Your task to perform on an android device: delete the emails in spam in the gmail app Image 0: 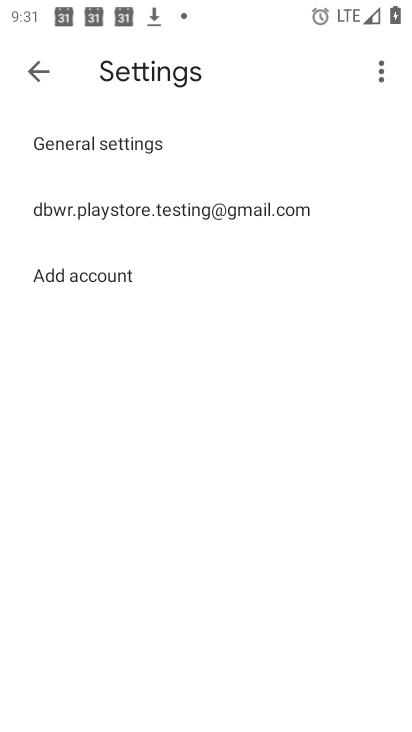
Step 0: press home button
Your task to perform on an android device: delete the emails in spam in the gmail app Image 1: 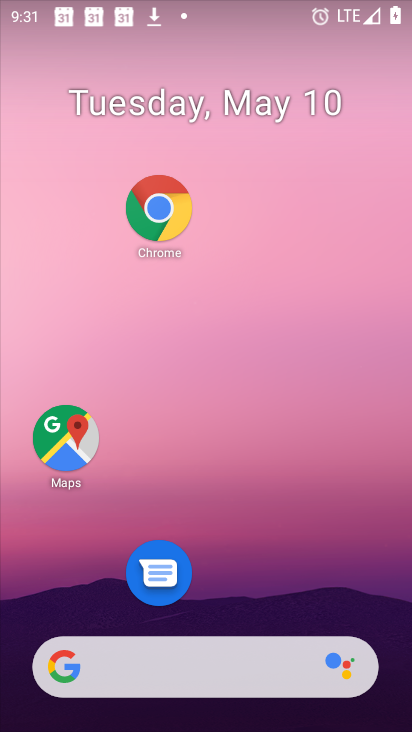
Step 1: drag from (251, 711) to (393, 147)
Your task to perform on an android device: delete the emails in spam in the gmail app Image 2: 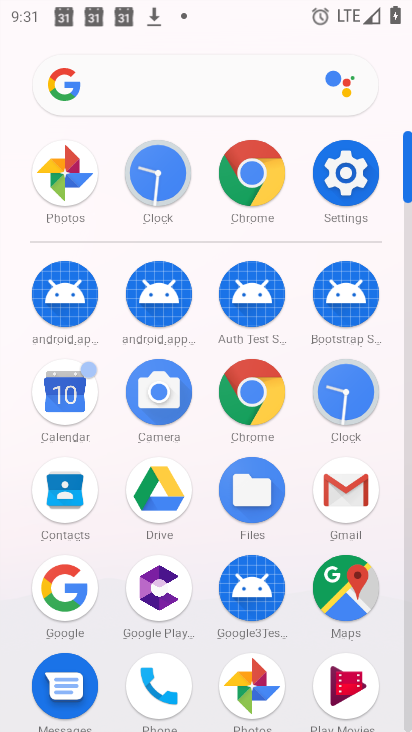
Step 2: click (358, 494)
Your task to perform on an android device: delete the emails in spam in the gmail app Image 3: 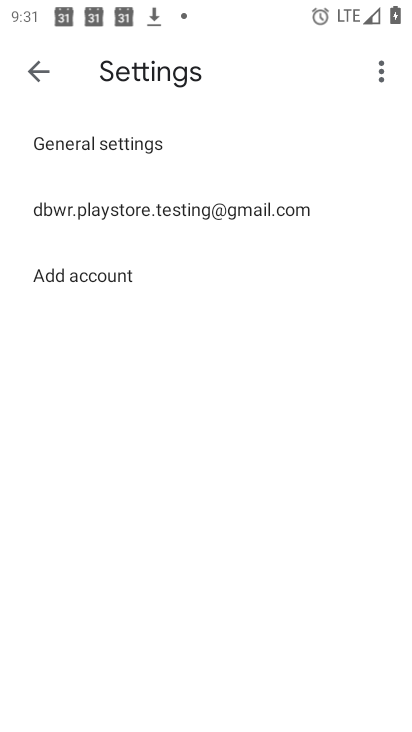
Step 3: click (40, 75)
Your task to perform on an android device: delete the emails in spam in the gmail app Image 4: 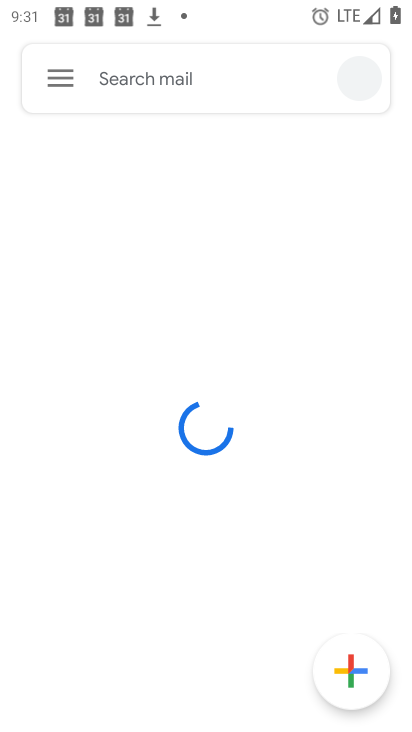
Step 4: click (54, 79)
Your task to perform on an android device: delete the emails in spam in the gmail app Image 5: 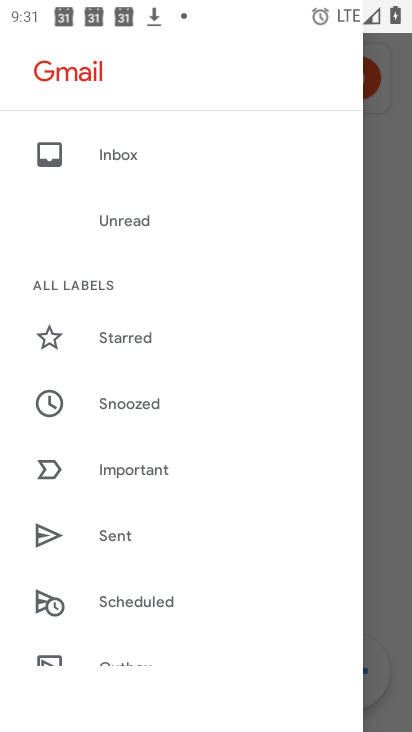
Step 5: drag from (158, 475) to (217, 244)
Your task to perform on an android device: delete the emails in spam in the gmail app Image 6: 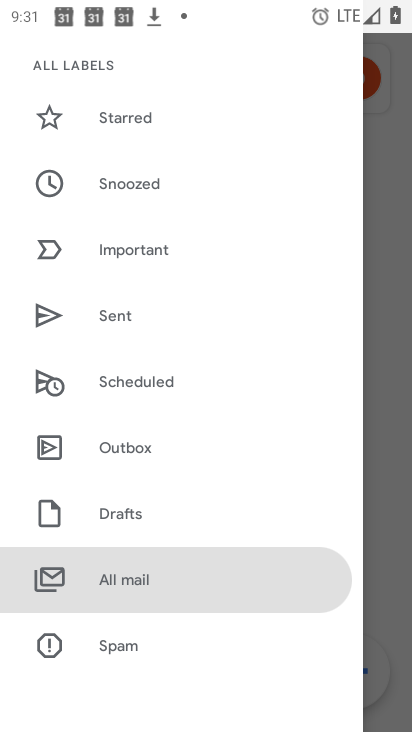
Step 6: drag from (186, 566) to (199, 345)
Your task to perform on an android device: delete the emails in spam in the gmail app Image 7: 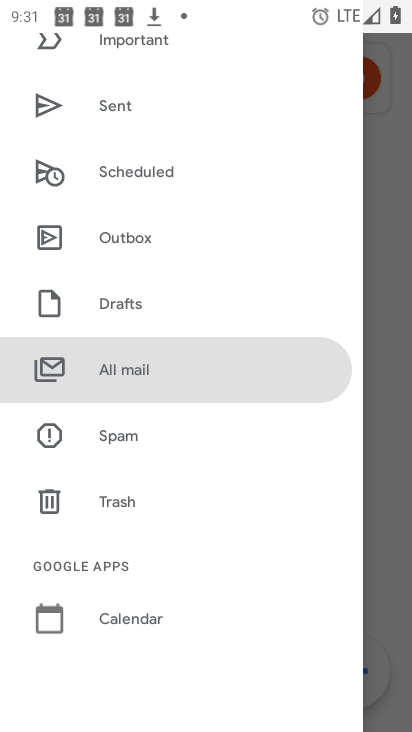
Step 7: drag from (156, 545) to (262, 259)
Your task to perform on an android device: delete the emails in spam in the gmail app Image 8: 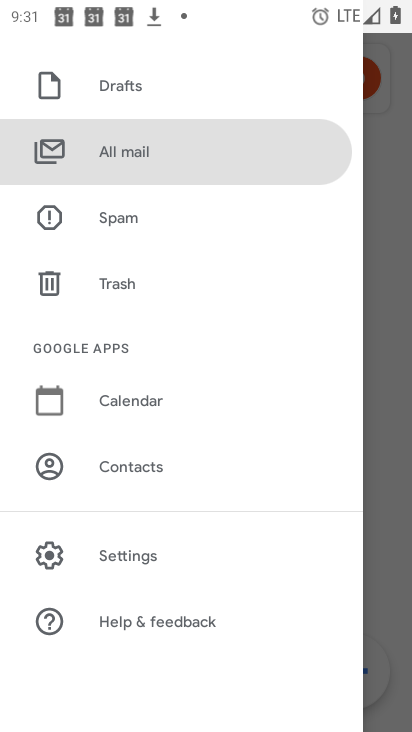
Step 8: click (121, 548)
Your task to perform on an android device: delete the emails in spam in the gmail app Image 9: 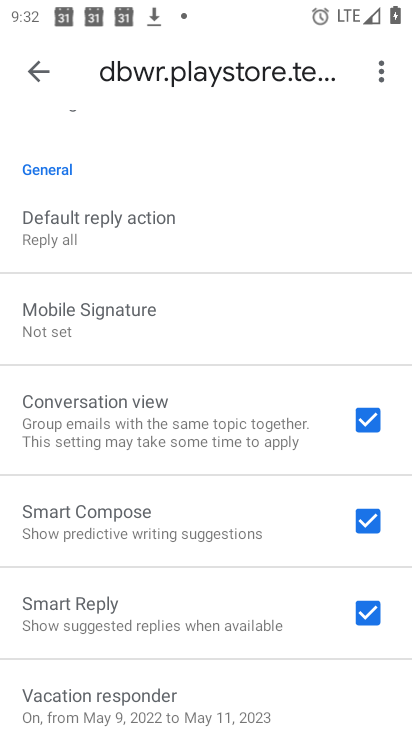
Step 9: click (23, 74)
Your task to perform on an android device: delete the emails in spam in the gmail app Image 10: 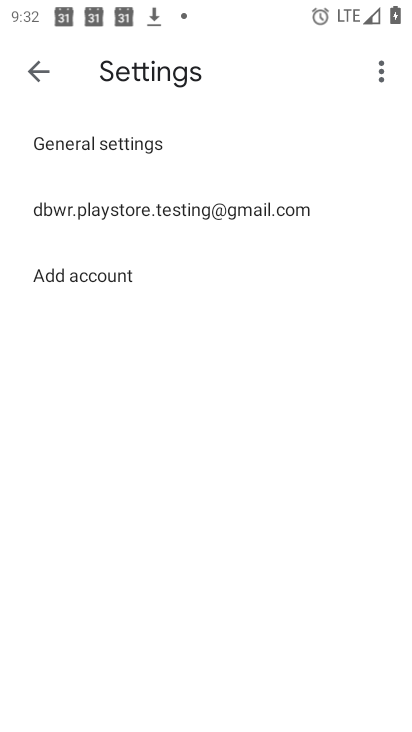
Step 10: click (55, 69)
Your task to perform on an android device: delete the emails in spam in the gmail app Image 11: 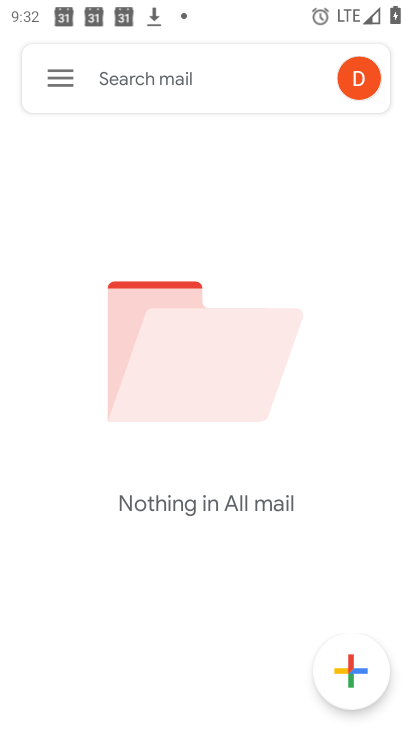
Step 11: click (63, 82)
Your task to perform on an android device: delete the emails in spam in the gmail app Image 12: 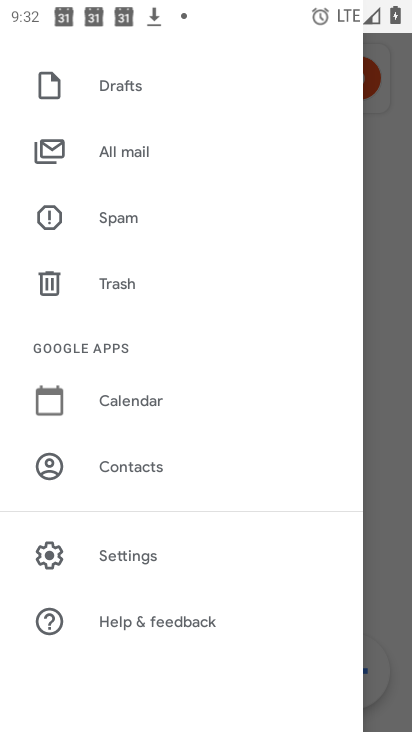
Step 12: click (150, 217)
Your task to perform on an android device: delete the emails in spam in the gmail app Image 13: 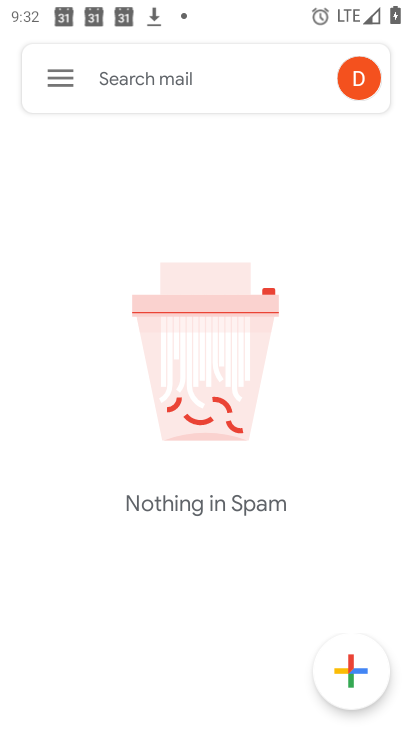
Step 13: task complete